Your task to perform on an android device: open wifi settings Image 0: 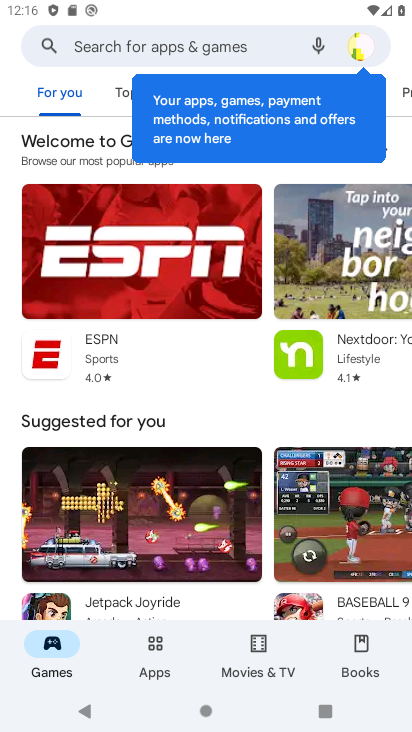
Step 0: press home button
Your task to perform on an android device: open wifi settings Image 1: 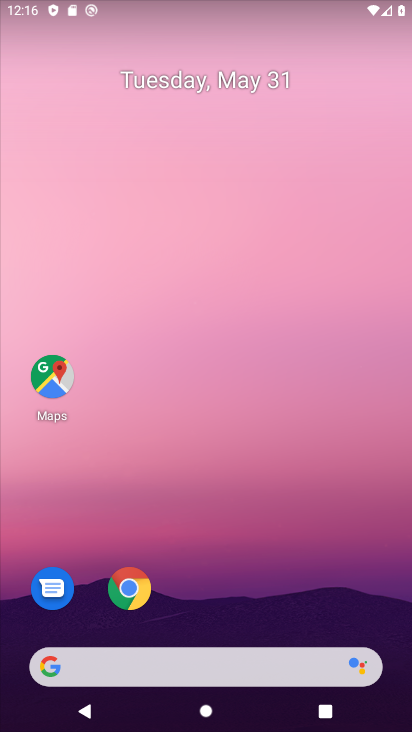
Step 1: drag from (134, 728) to (145, 14)
Your task to perform on an android device: open wifi settings Image 2: 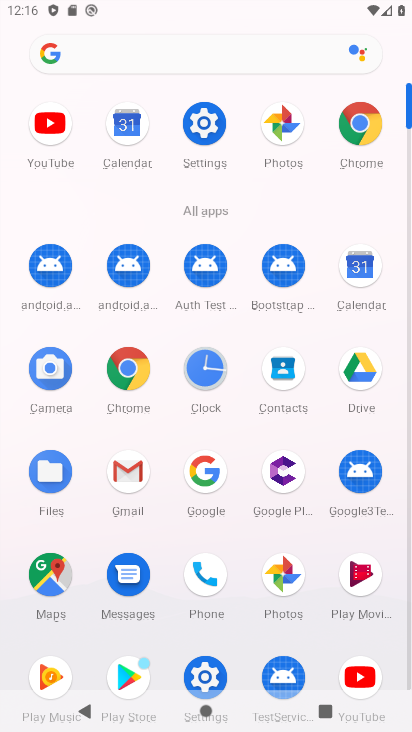
Step 2: click (198, 124)
Your task to perform on an android device: open wifi settings Image 3: 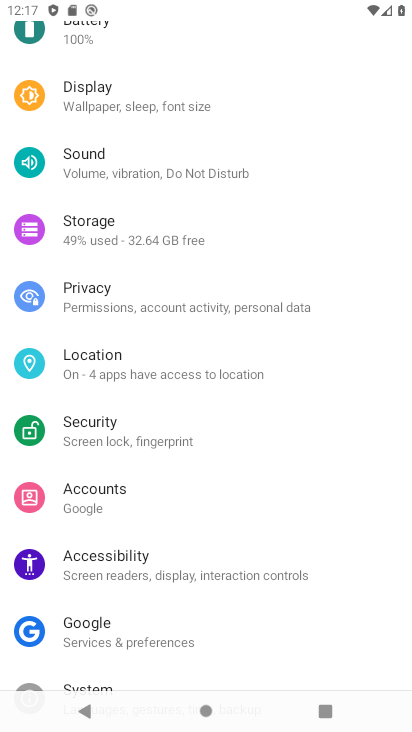
Step 3: drag from (130, 149) to (165, 560)
Your task to perform on an android device: open wifi settings Image 4: 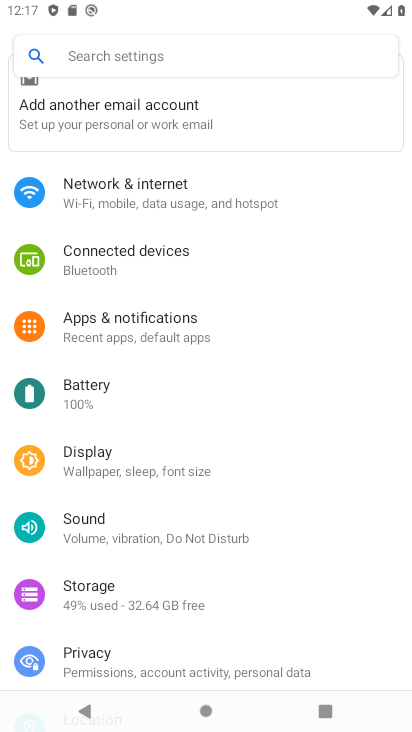
Step 4: click (131, 208)
Your task to perform on an android device: open wifi settings Image 5: 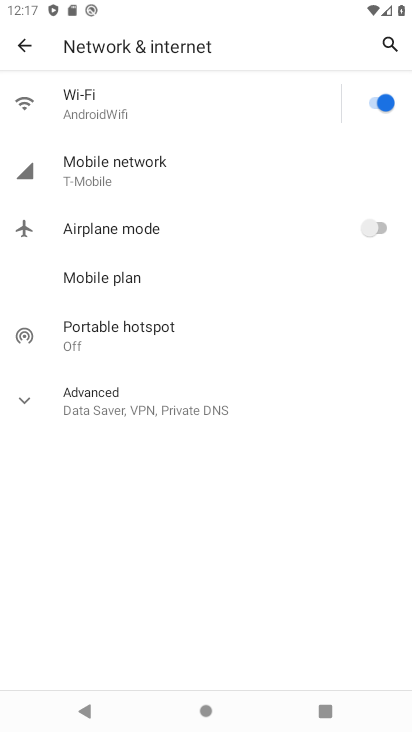
Step 5: click (150, 110)
Your task to perform on an android device: open wifi settings Image 6: 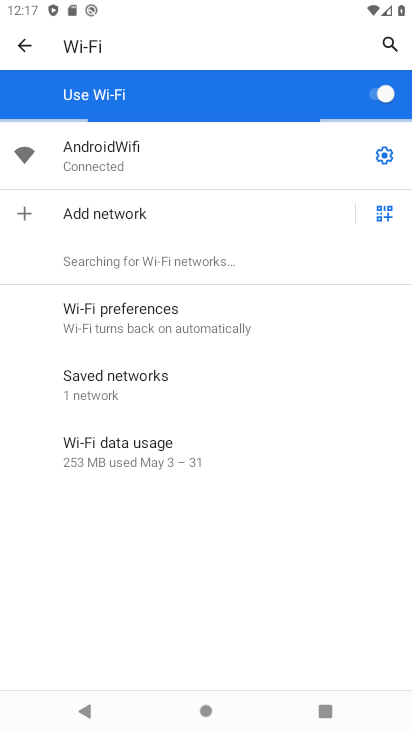
Step 6: task complete